Your task to perform on an android device: Open Google Chrome and click the shortcut for Amazon.com Image 0: 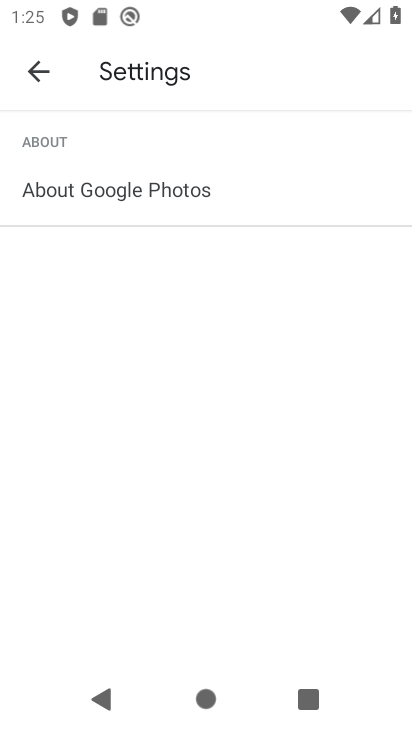
Step 0: press home button
Your task to perform on an android device: Open Google Chrome and click the shortcut for Amazon.com Image 1: 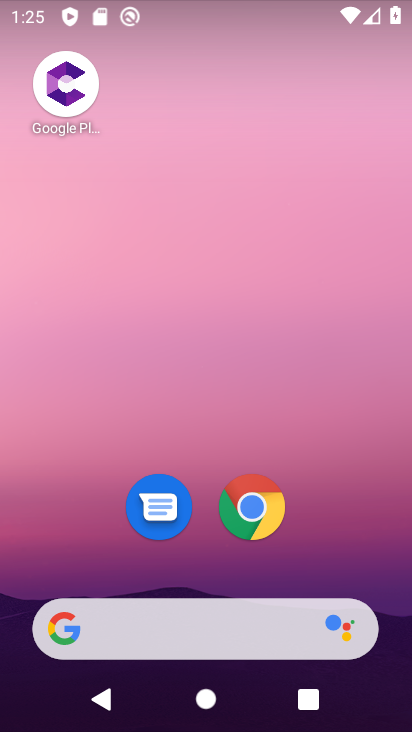
Step 1: drag from (231, 579) to (399, 17)
Your task to perform on an android device: Open Google Chrome and click the shortcut for Amazon.com Image 2: 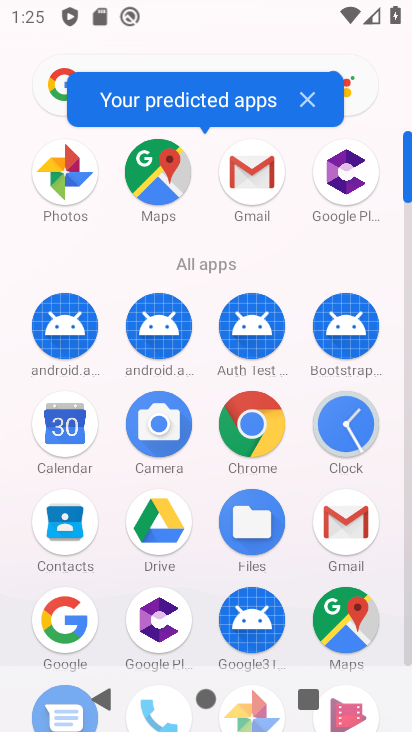
Step 2: click (264, 438)
Your task to perform on an android device: Open Google Chrome and click the shortcut for Amazon.com Image 3: 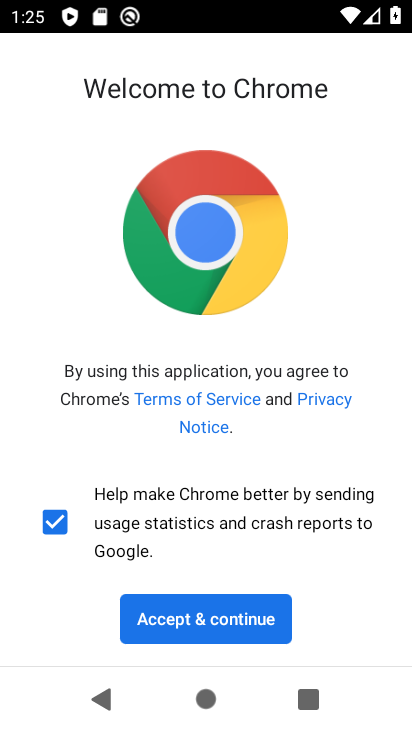
Step 3: click (186, 640)
Your task to perform on an android device: Open Google Chrome and click the shortcut for Amazon.com Image 4: 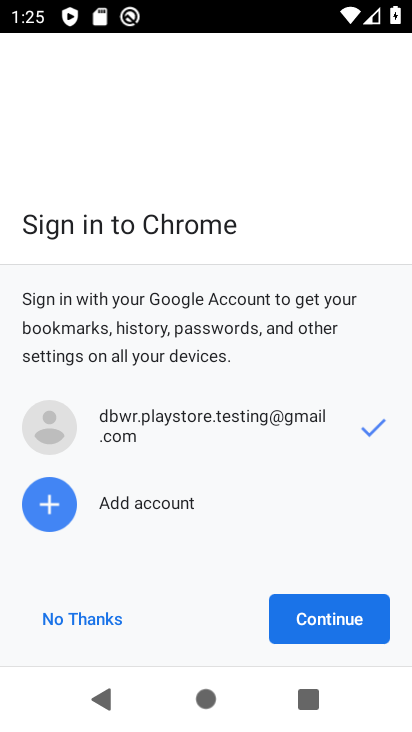
Step 4: click (350, 612)
Your task to perform on an android device: Open Google Chrome and click the shortcut for Amazon.com Image 5: 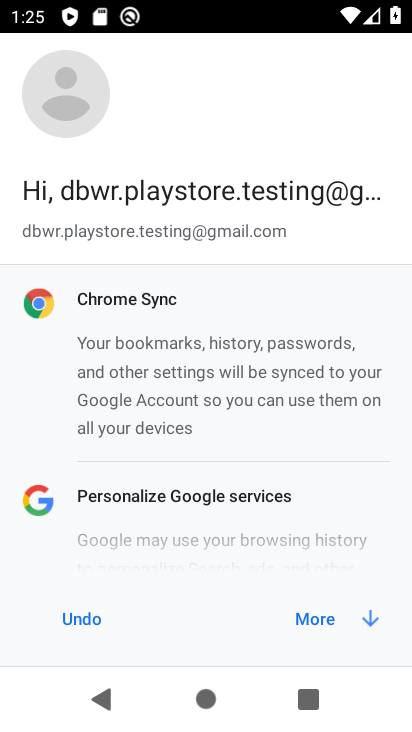
Step 5: click (337, 619)
Your task to perform on an android device: Open Google Chrome and click the shortcut for Amazon.com Image 6: 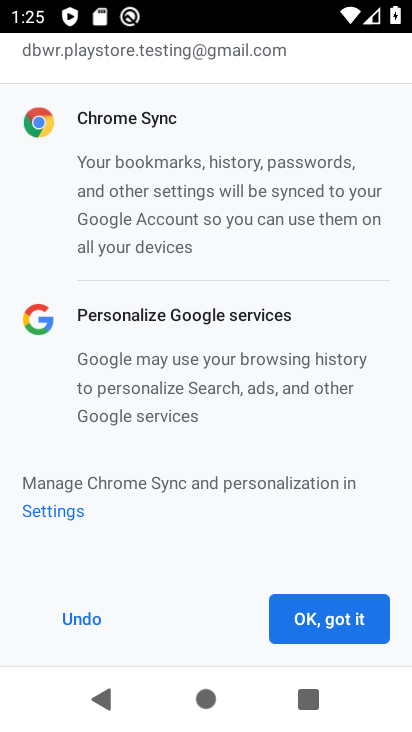
Step 6: click (314, 619)
Your task to perform on an android device: Open Google Chrome and click the shortcut for Amazon.com Image 7: 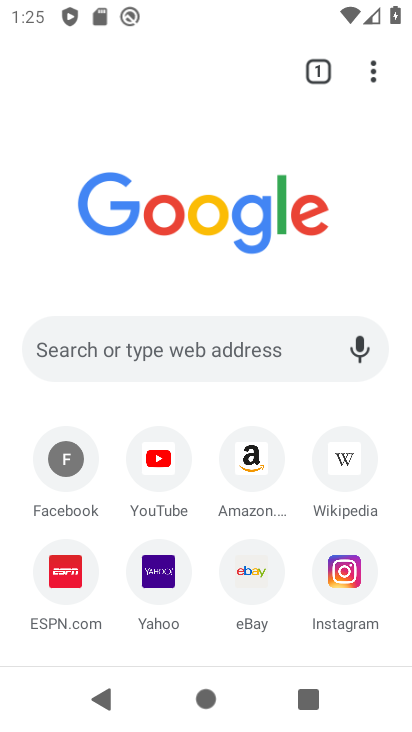
Step 7: click (262, 462)
Your task to perform on an android device: Open Google Chrome and click the shortcut for Amazon.com Image 8: 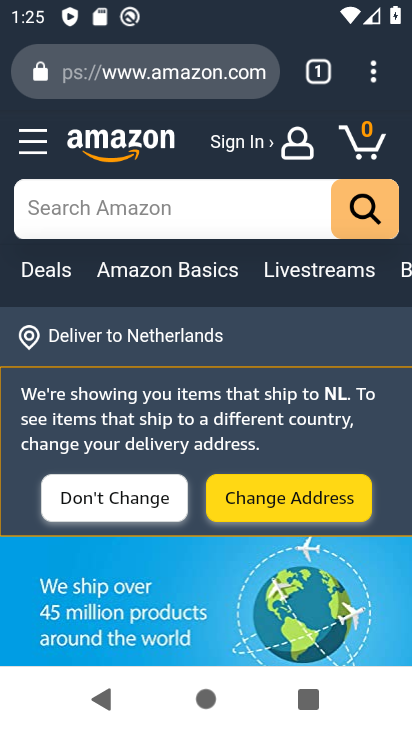
Step 8: task complete